Your task to perform on an android device: Open eBay Image 0: 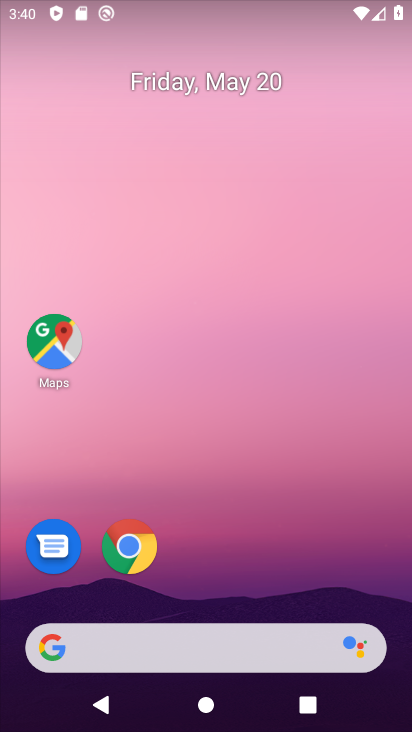
Step 0: click (131, 552)
Your task to perform on an android device: Open eBay Image 1: 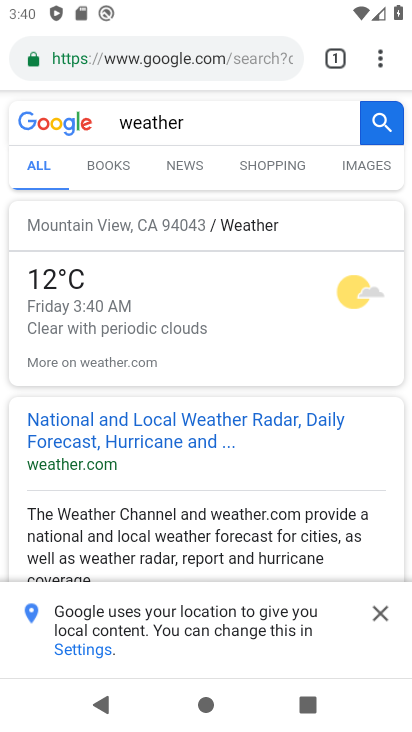
Step 1: click (239, 63)
Your task to perform on an android device: Open eBay Image 2: 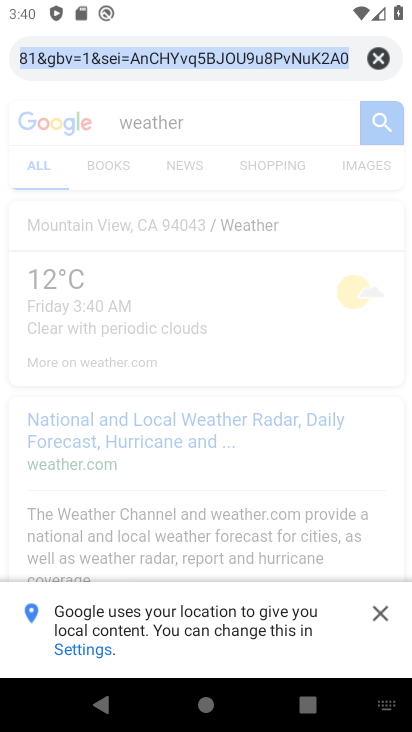
Step 2: type "ebay"
Your task to perform on an android device: Open eBay Image 3: 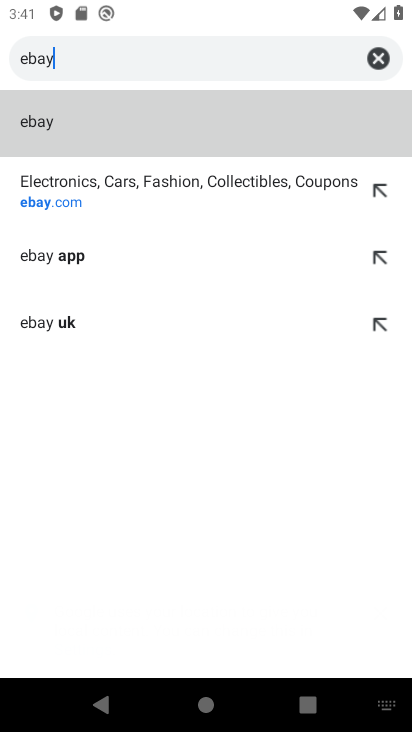
Step 3: click (50, 203)
Your task to perform on an android device: Open eBay Image 4: 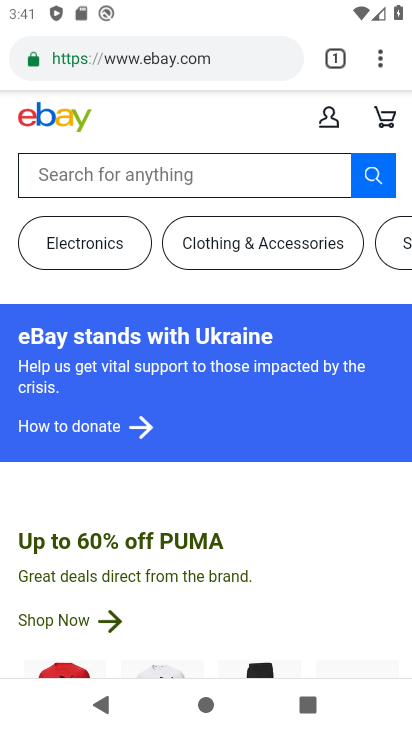
Step 4: task complete